Your task to perform on an android device: Go to Amazon Image 0: 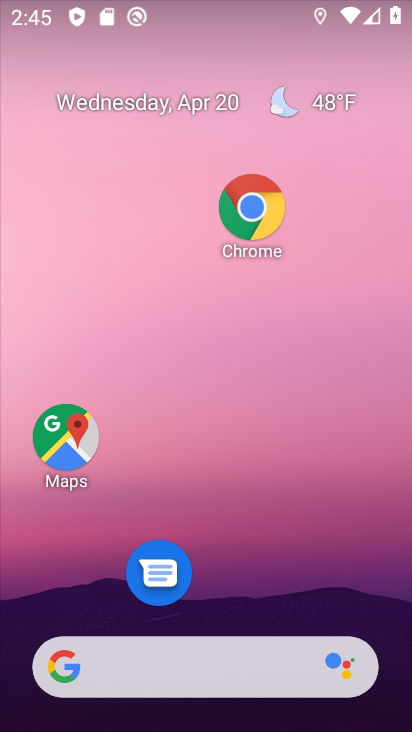
Step 0: drag from (214, 637) to (244, 147)
Your task to perform on an android device: Go to Amazon Image 1: 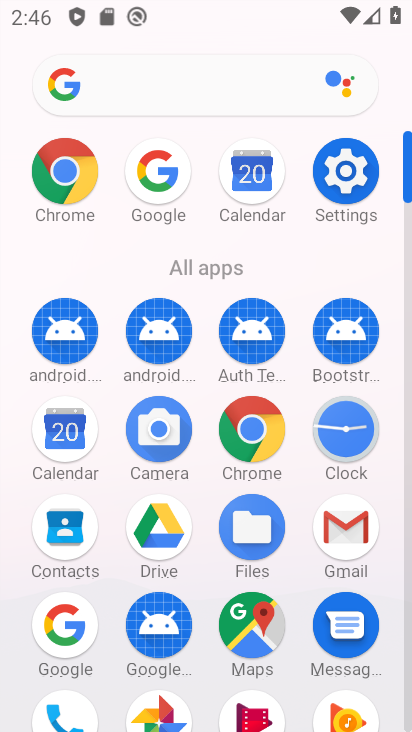
Step 1: click (258, 442)
Your task to perform on an android device: Go to Amazon Image 2: 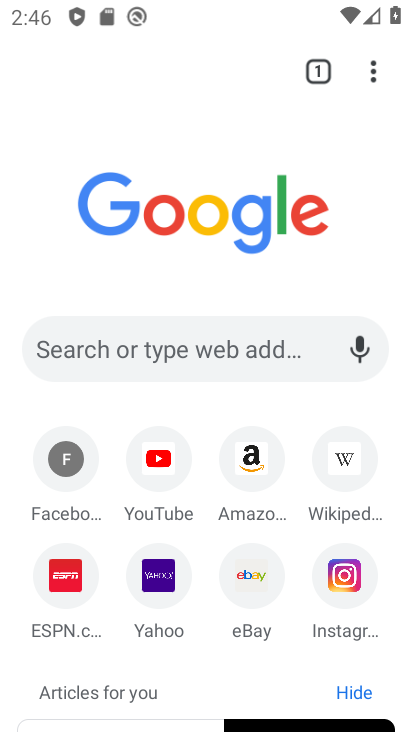
Step 2: click (254, 461)
Your task to perform on an android device: Go to Amazon Image 3: 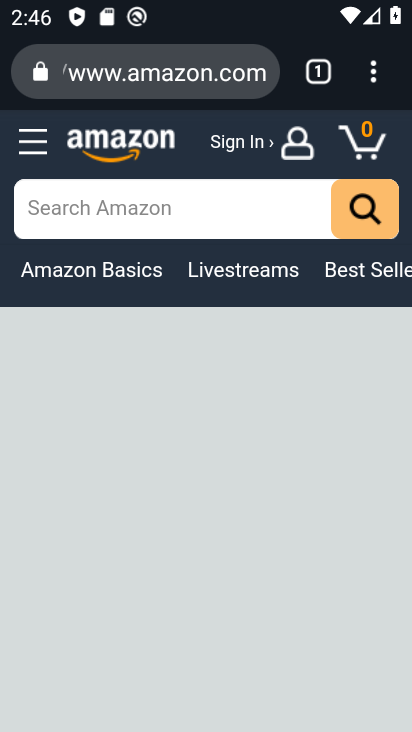
Step 3: task complete